Your task to perform on an android device: turn off location Image 0: 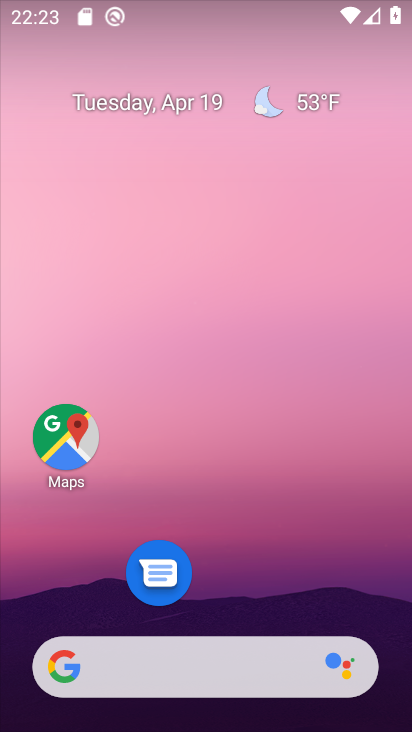
Step 0: click (64, 430)
Your task to perform on an android device: turn off location Image 1: 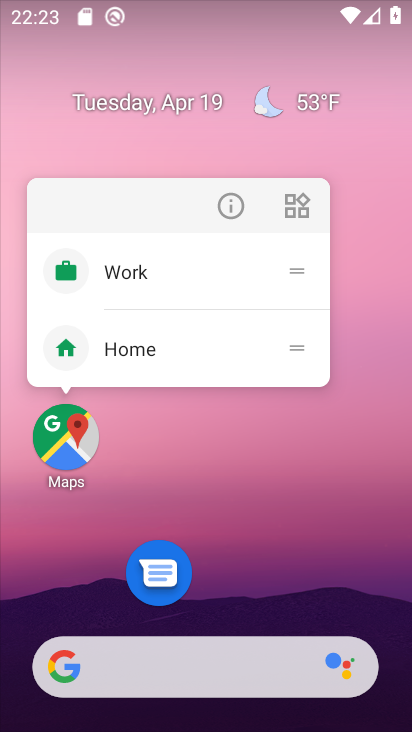
Step 1: click (203, 463)
Your task to perform on an android device: turn off location Image 2: 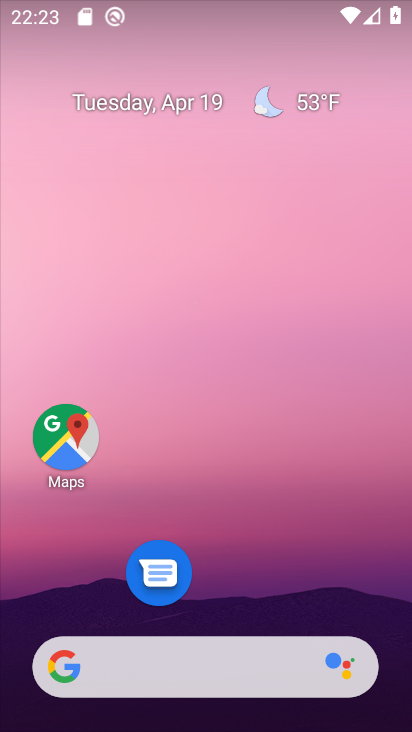
Step 2: click (68, 439)
Your task to perform on an android device: turn off location Image 3: 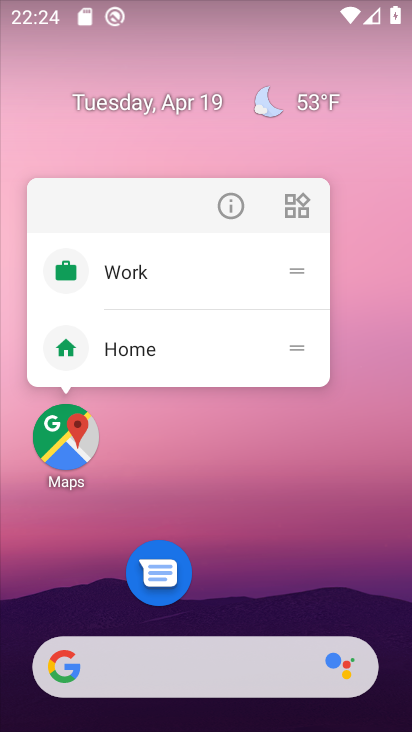
Step 3: click (67, 430)
Your task to perform on an android device: turn off location Image 4: 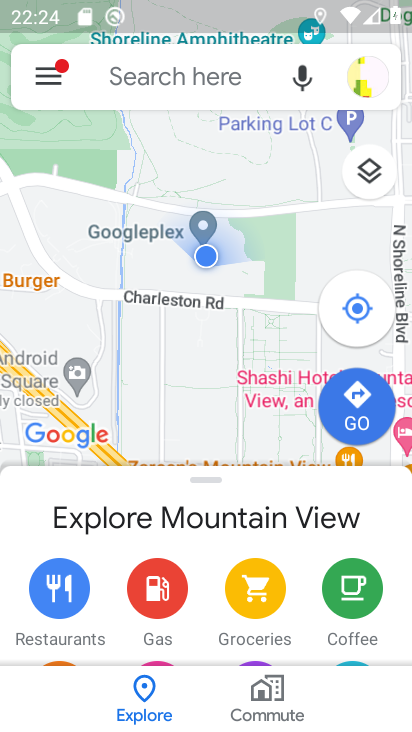
Step 4: click (45, 76)
Your task to perform on an android device: turn off location Image 5: 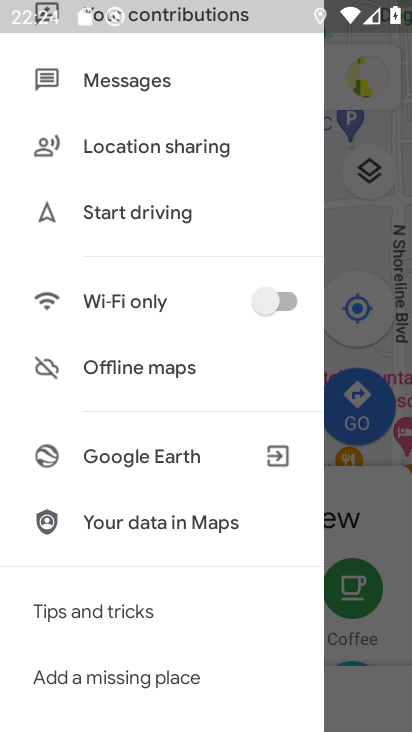
Step 5: task complete